Your task to perform on an android device: Open calendar and show me the first week of next month Image 0: 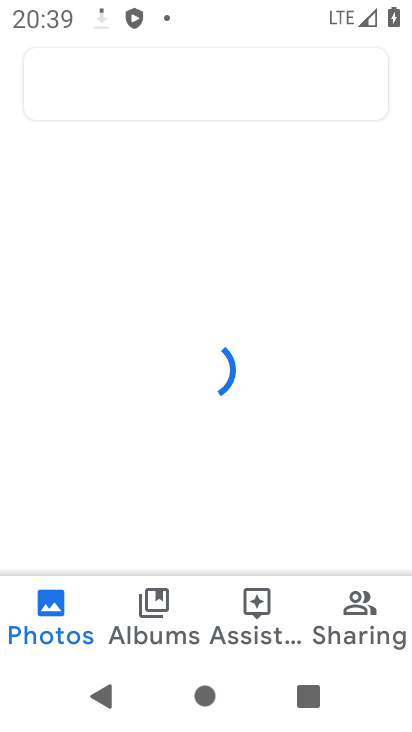
Step 0: press back button
Your task to perform on an android device: Open calendar and show me the first week of next month Image 1: 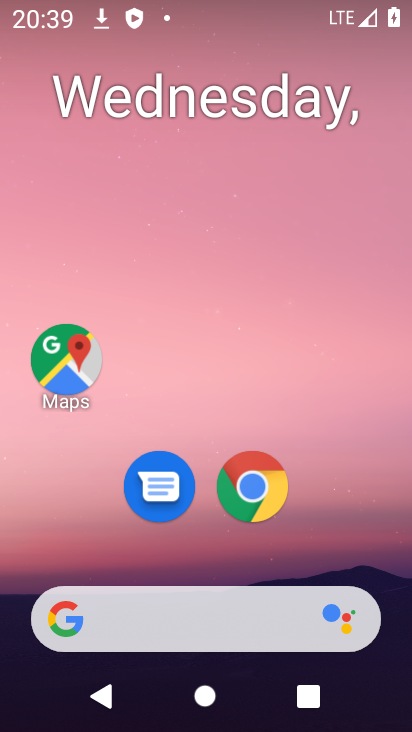
Step 1: drag from (209, 546) to (251, 0)
Your task to perform on an android device: Open calendar and show me the first week of next month Image 2: 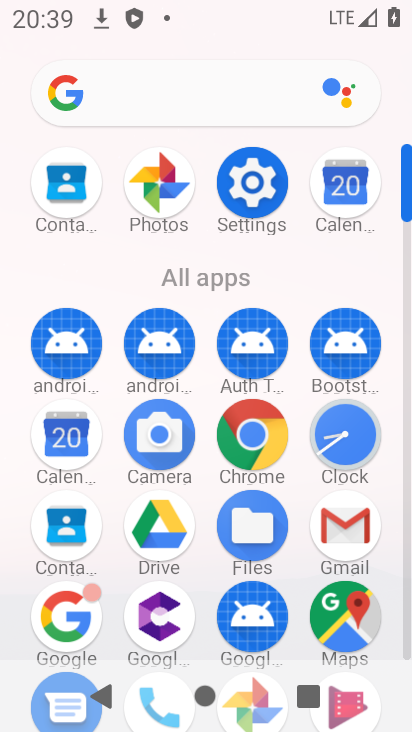
Step 2: click (75, 434)
Your task to perform on an android device: Open calendar and show me the first week of next month Image 3: 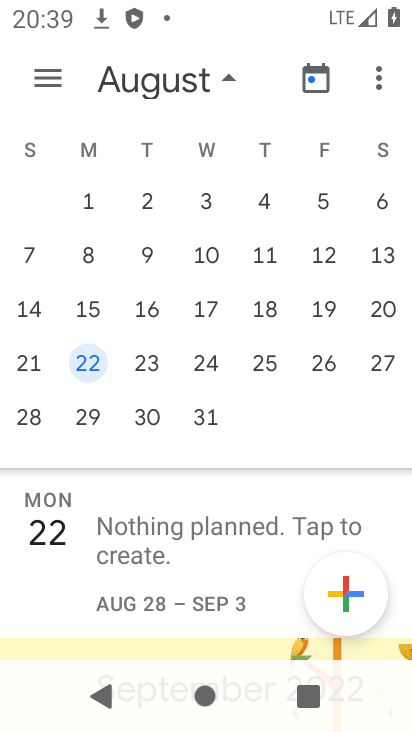
Step 3: click (82, 190)
Your task to perform on an android device: Open calendar and show me the first week of next month Image 4: 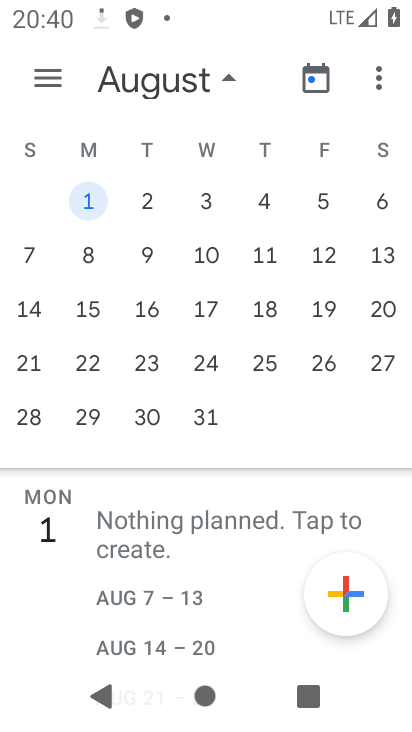
Step 4: task complete